Your task to perform on an android device: turn on the 24-hour format for clock Image 0: 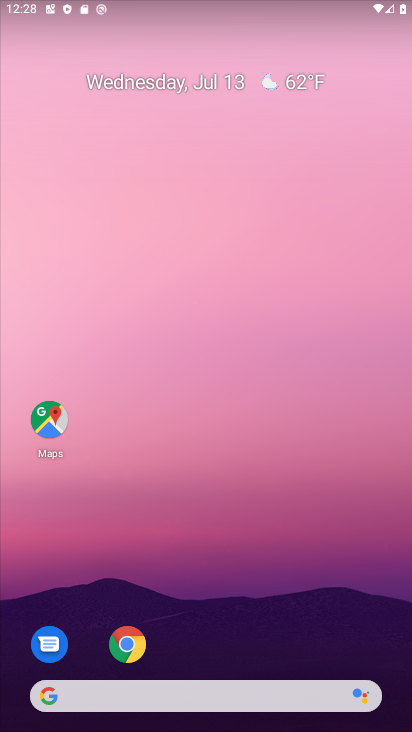
Step 0: drag from (214, 662) to (174, 119)
Your task to perform on an android device: turn on the 24-hour format for clock Image 1: 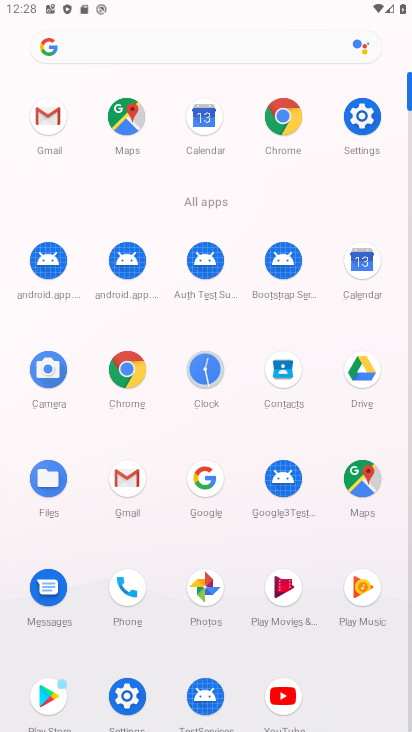
Step 1: click (212, 368)
Your task to perform on an android device: turn on the 24-hour format for clock Image 2: 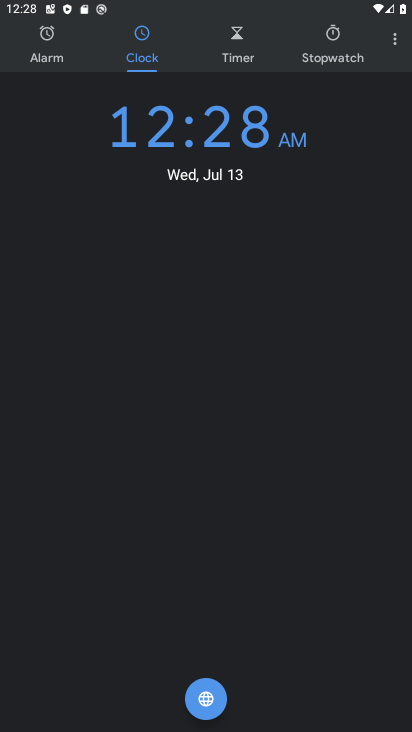
Step 2: click (393, 48)
Your task to perform on an android device: turn on the 24-hour format for clock Image 3: 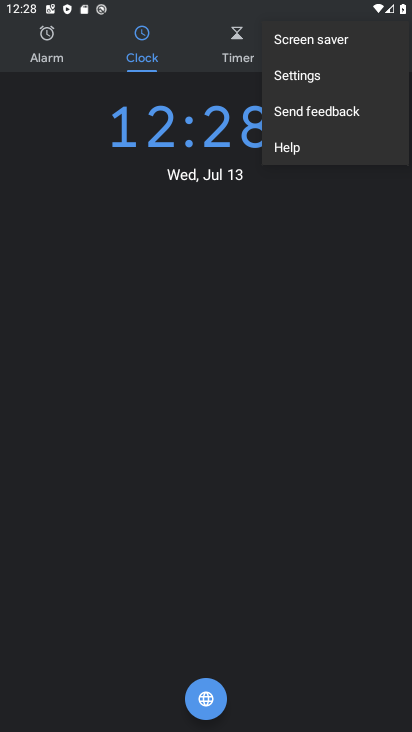
Step 3: click (340, 82)
Your task to perform on an android device: turn on the 24-hour format for clock Image 4: 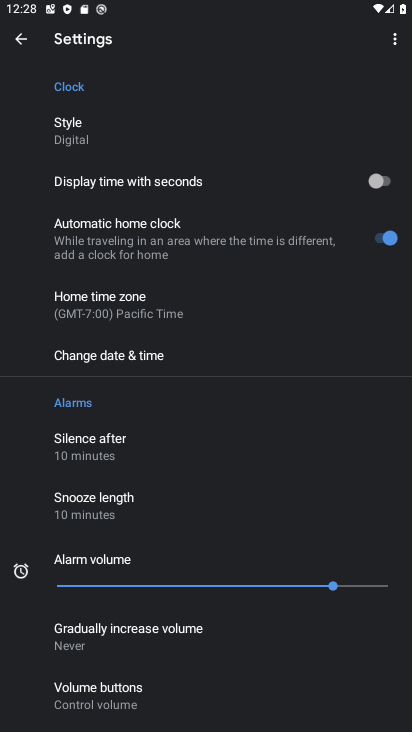
Step 4: click (131, 349)
Your task to perform on an android device: turn on the 24-hour format for clock Image 5: 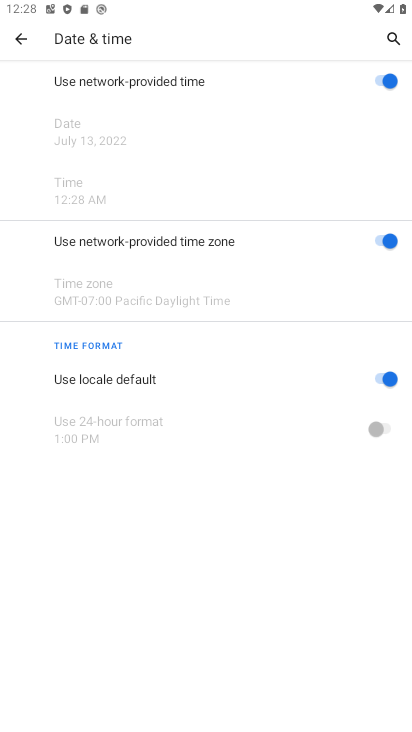
Step 5: click (378, 374)
Your task to perform on an android device: turn on the 24-hour format for clock Image 6: 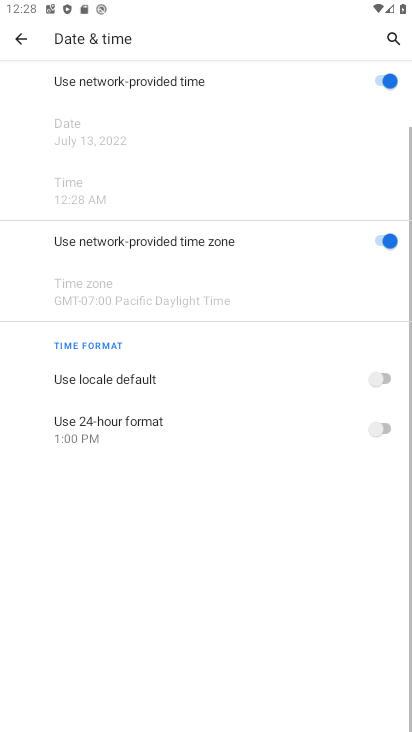
Step 6: click (381, 422)
Your task to perform on an android device: turn on the 24-hour format for clock Image 7: 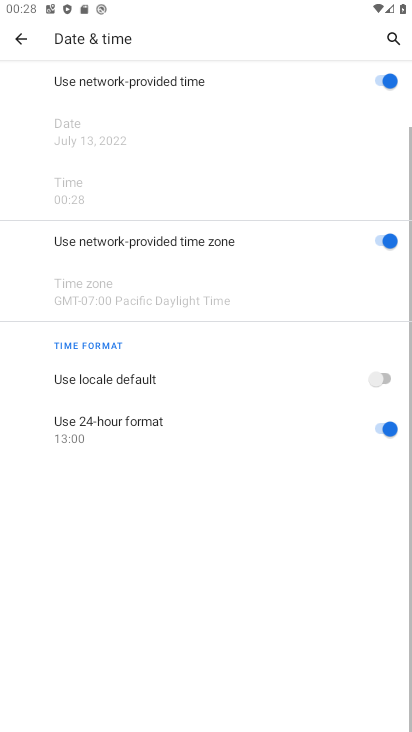
Step 7: task complete